Your task to perform on an android device: open chrome privacy settings Image 0: 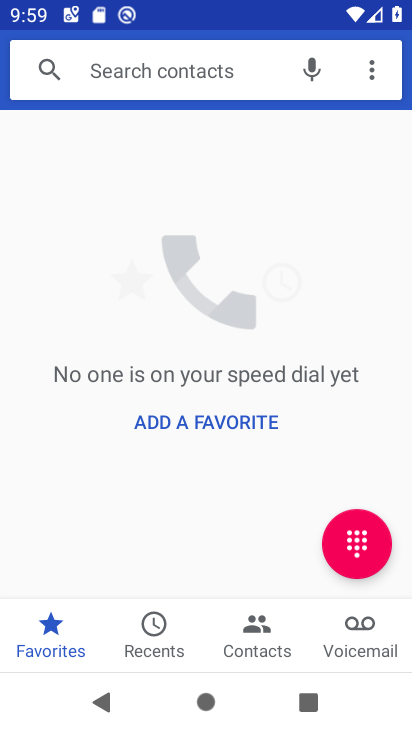
Step 0: press home button
Your task to perform on an android device: open chrome privacy settings Image 1: 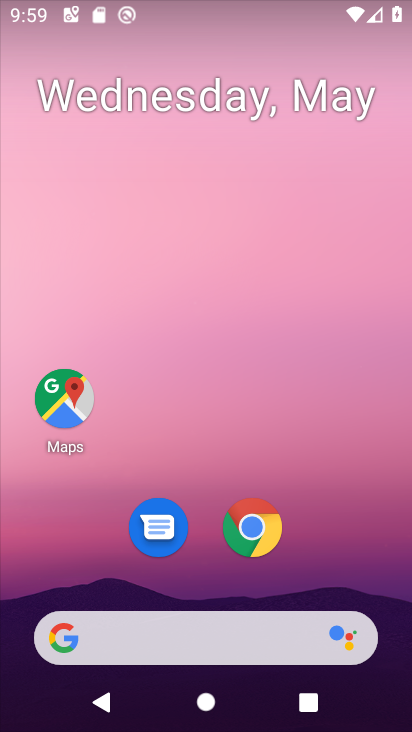
Step 1: click (263, 523)
Your task to perform on an android device: open chrome privacy settings Image 2: 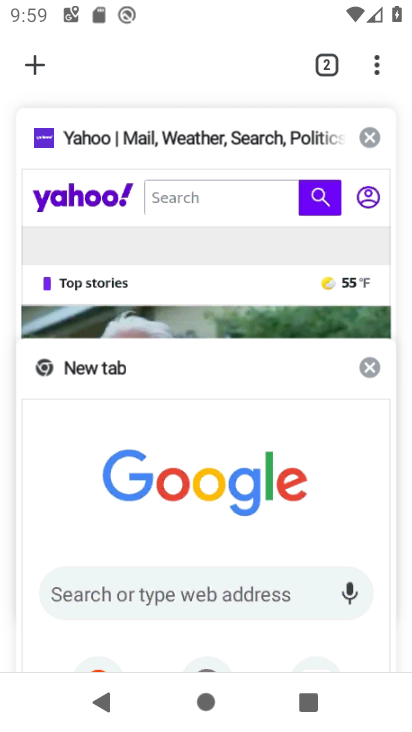
Step 2: press back button
Your task to perform on an android device: open chrome privacy settings Image 3: 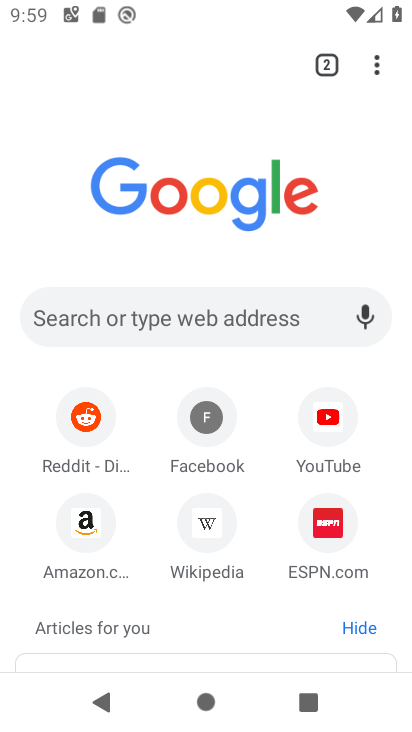
Step 3: click (374, 62)
Your task to perform on an android device: open chrome privacy settings Image 4: 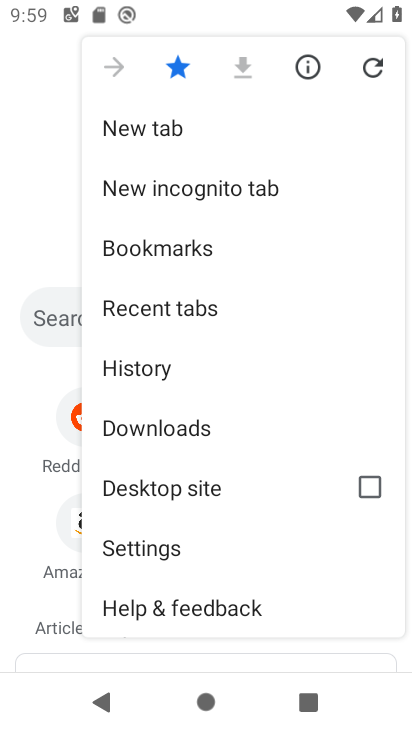
Step 4: click (187, 548)
Your task to perform on an android device: open chrome privacy settings Image 5: 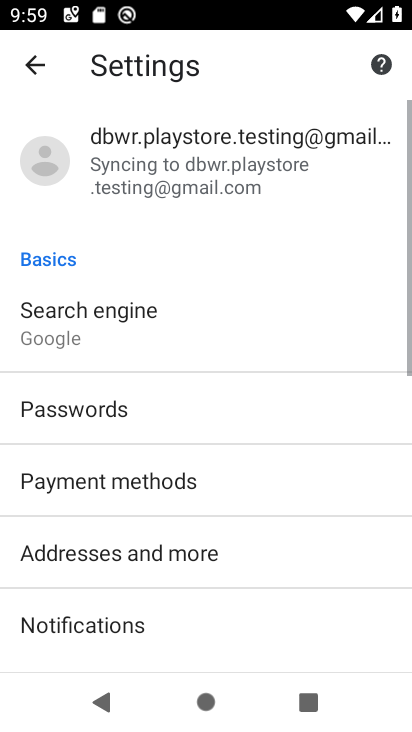
Step 5: drag from (165, 514) to (216, 100)
Your task to perform on an android device: open chrome privacy settings Image 6: 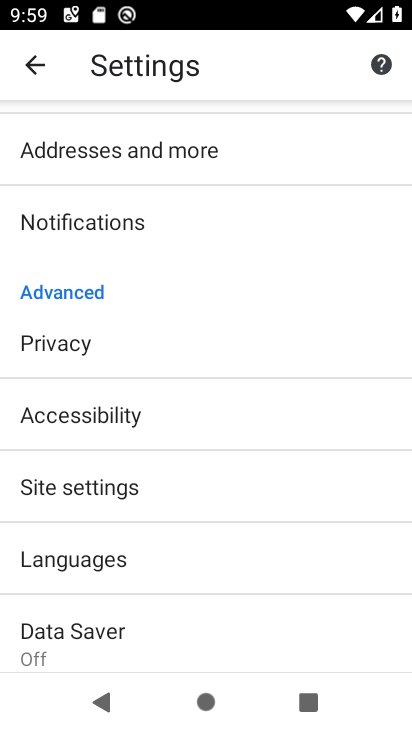
Step 6: click (61, 357)
Your task to perform on an android device: open chrome privacy settings Image 7: 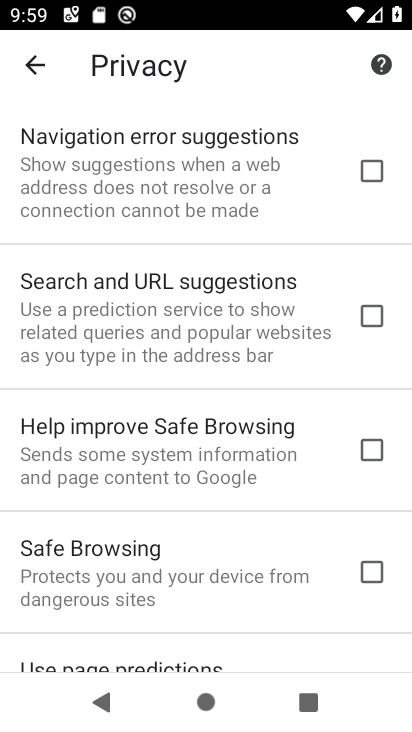
Step 7: task complete